Your task to perform on an android device: Open calendar and show me the second week of next month Image 0: 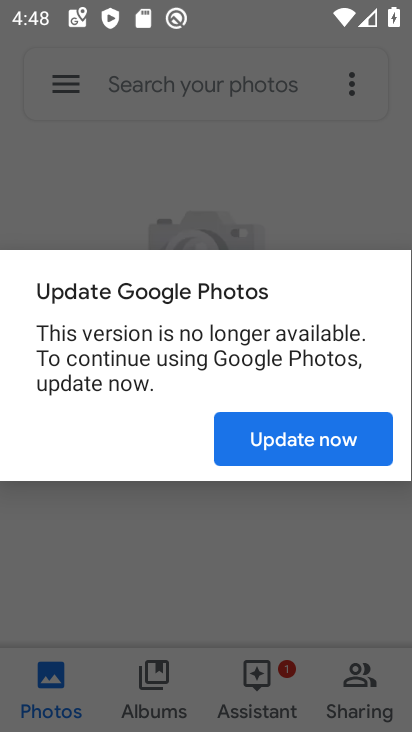
Step 0: press back button
Your task to perform on an android device: Open calendar and show me the second week of next month Image 1: 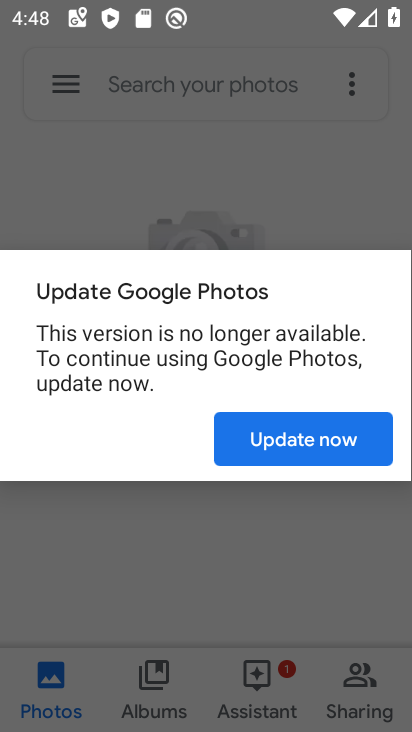
Step 1: press home button
Your task to perform on an android device: Open calendar and show me the second week of next month Image 2: 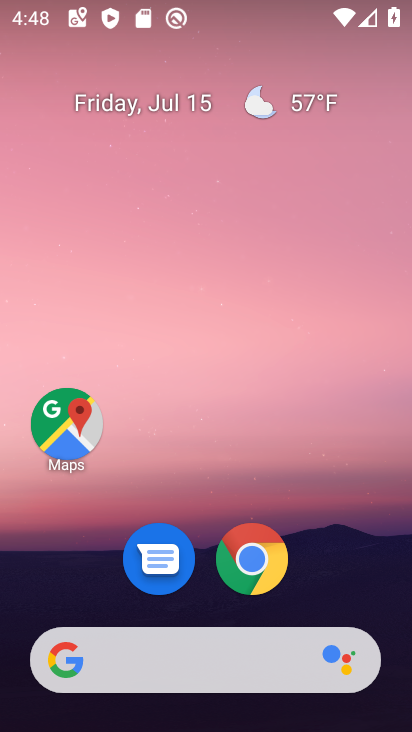
Step 2: drag from (60, 578) to (187, 18)
Your task to perform on an android device: Open calendar and show me the second week of next month Image 3: 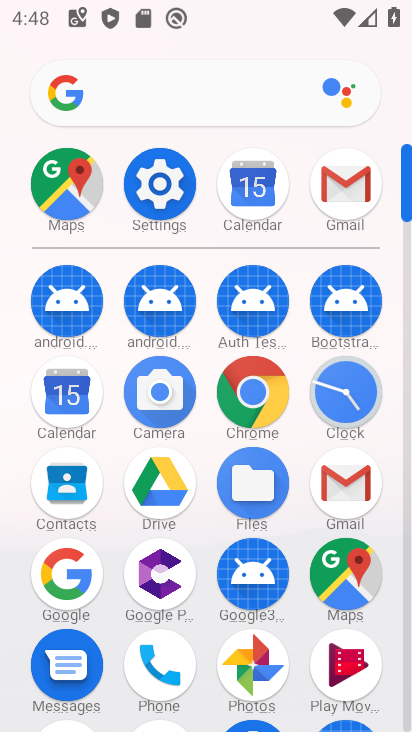
Step 3: click (58, 408)
Your task to perform on an android device: Open calendar and show me the second week of next month Image 4: 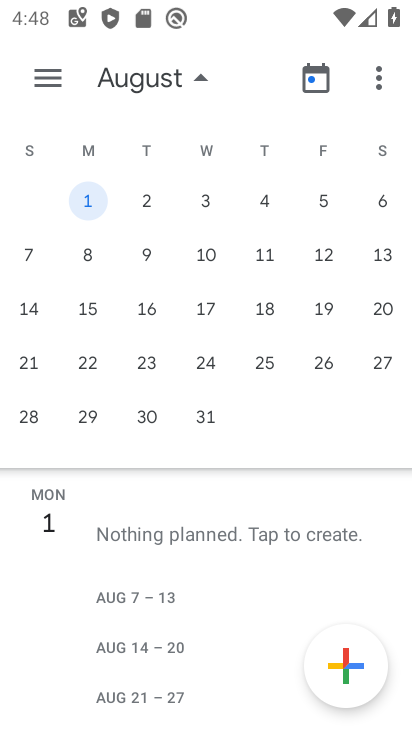
Step 4: click (97, 252)
Your task to perform on an android device: Open calendar and show me the second week of next month Image 5: 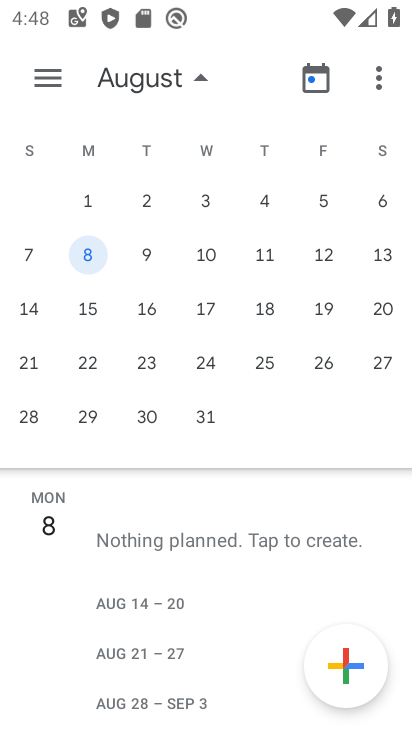
Step 5: task complete